Your task to perform on an android device: Open notification settings Image 0: 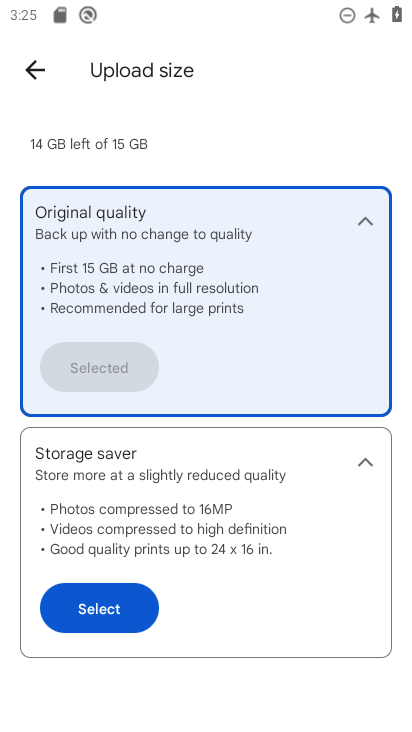
Step 0: press home button
Your task to perform on an android device: Open notification settings Image 1: 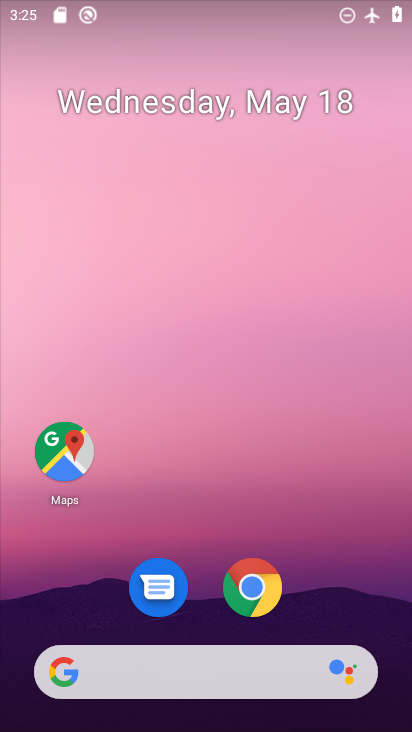
Step 1: drag from (196, 650) to (211, 202)
Your task to perform on an android device: Open notification settings Image 2: 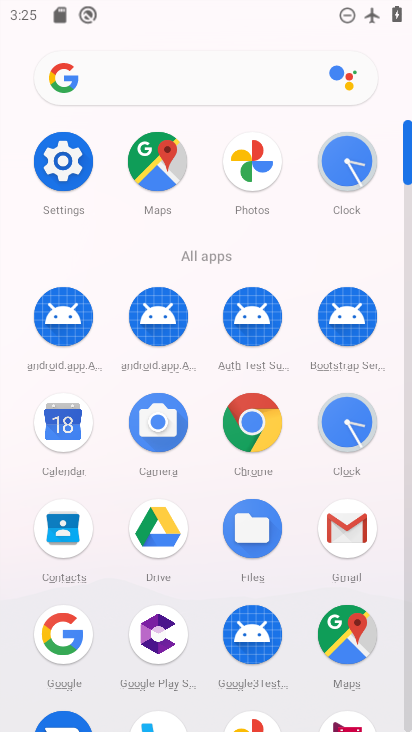
Step 2: click (50, 166)
Your task to perform on an android device: Open notification settings Image 3: 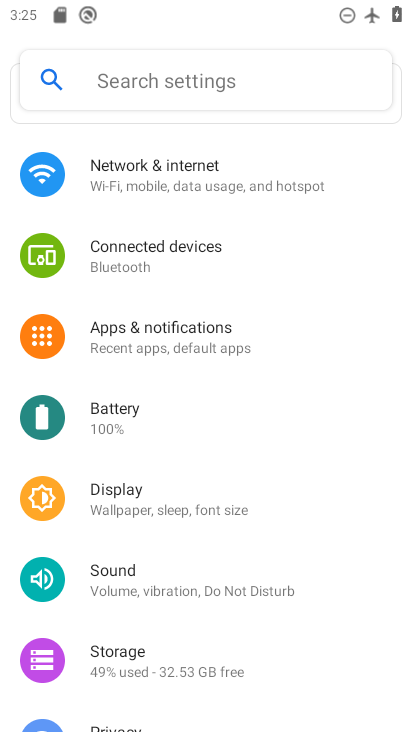
Step 3: click (240, 339)
Your task to perform on an android device: Open notification settings Image 4: 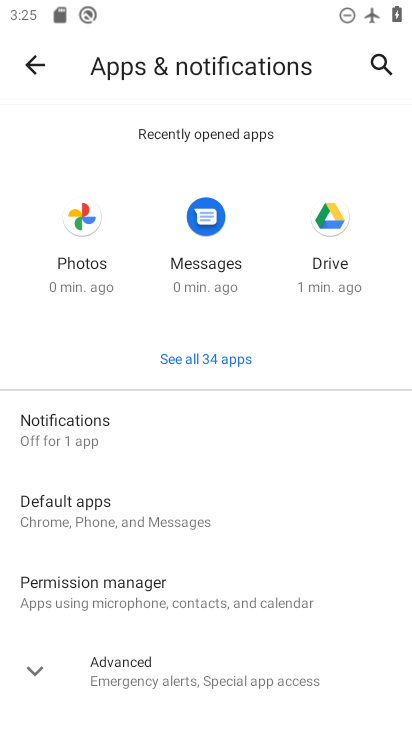
Step 4: task complete